Your task to perform on an android device: What is the recent news? Image 0: 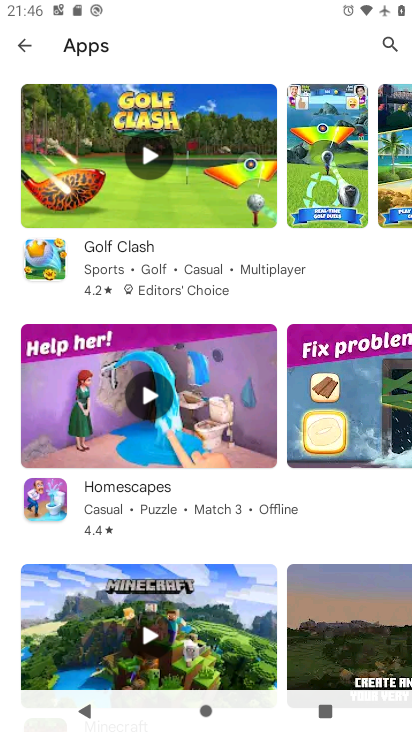
Step 0: press home button
Your task to perform on an android device: What is the recent news? Image 1: 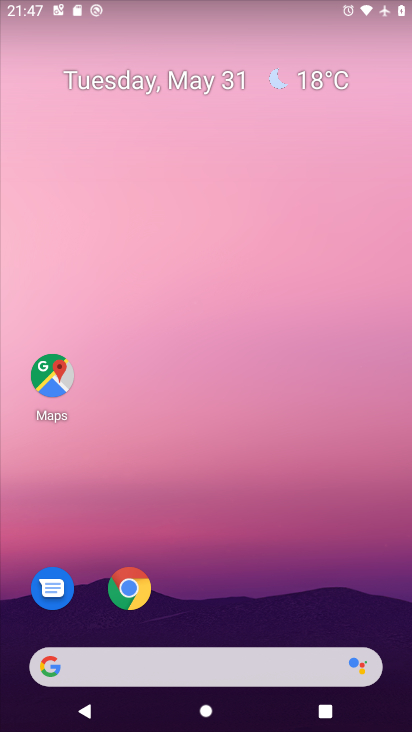
Step 1: click (48, 666)
Your task to perform on an android device: What is the recent news? Image 2: 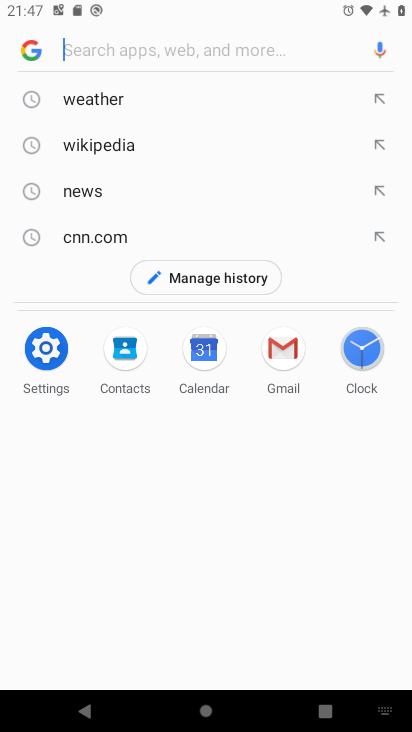
Step 2: click (88, 192)
Your task to perform on an android device: What is the recent news? Image 3: 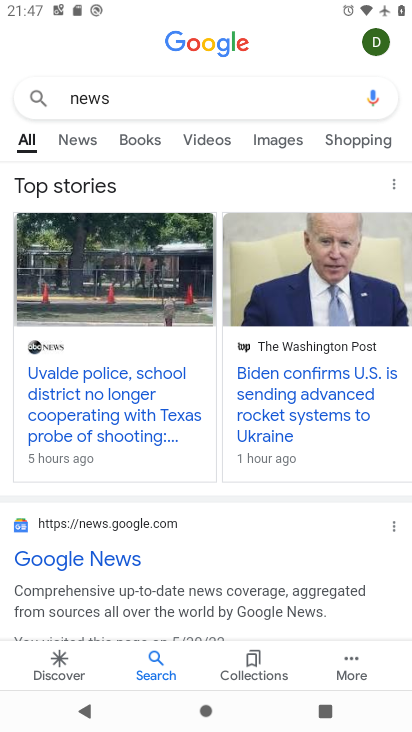
Step 3: click (86, 143)
Your task to perform on an android device: What is the recent news? Image 4: 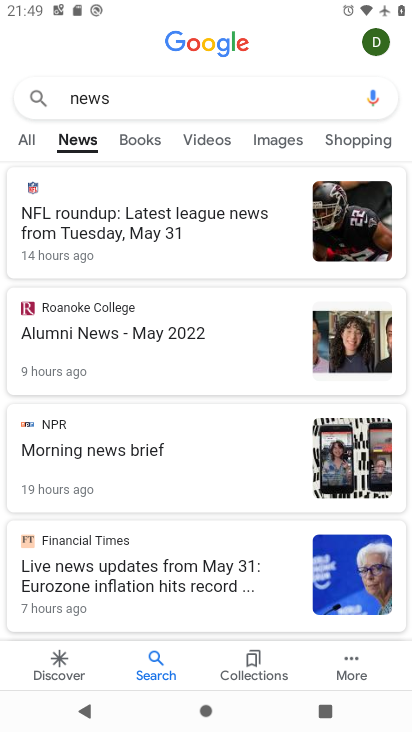
Step 4: task complete